Your task to perform on an android device: Open ESPN.com Image 0: 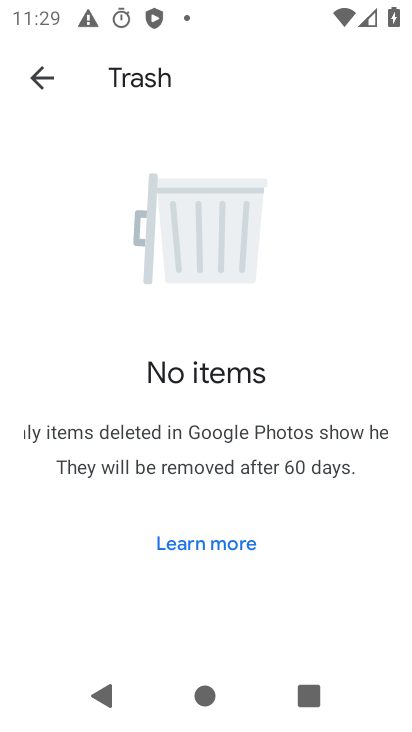
Step 0: press home button
Your task to perform on an android device: Open ESPN.com Image 1: 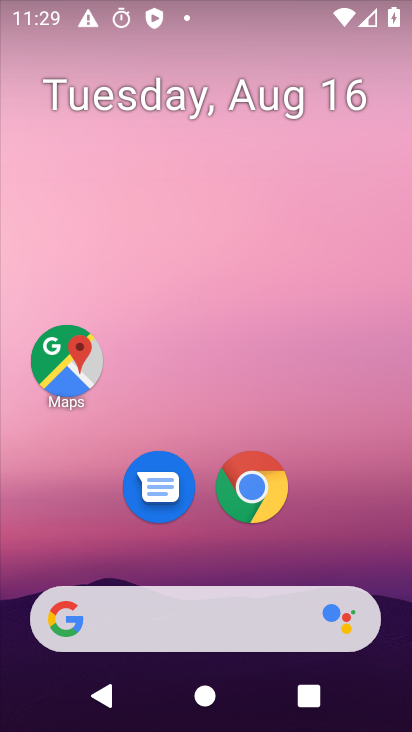
Step 1: click (248, 476)
Your task to perform on an android device: Open ESPN.com Image 2: 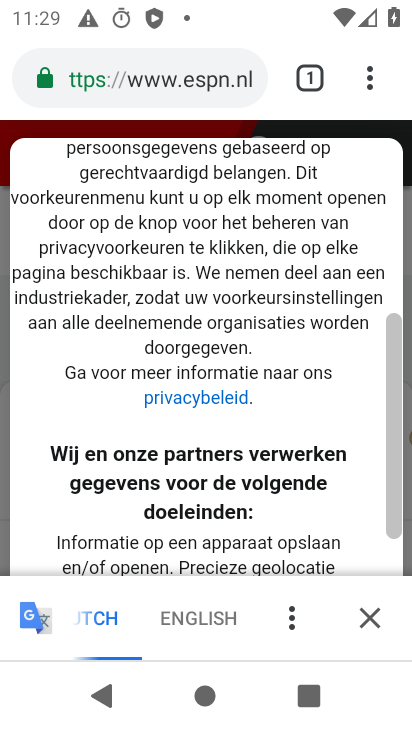
Step 2: click (368, 622)
Your task to perform on an android device: Open ESPN.com Image 3: 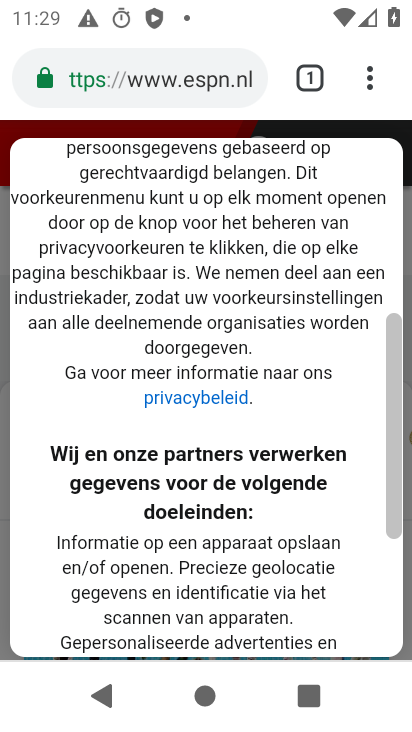
Step 3: drag from (368, 622) to (388, 215)
Your task to perform on an android device: Open ESPN.com Image 4: 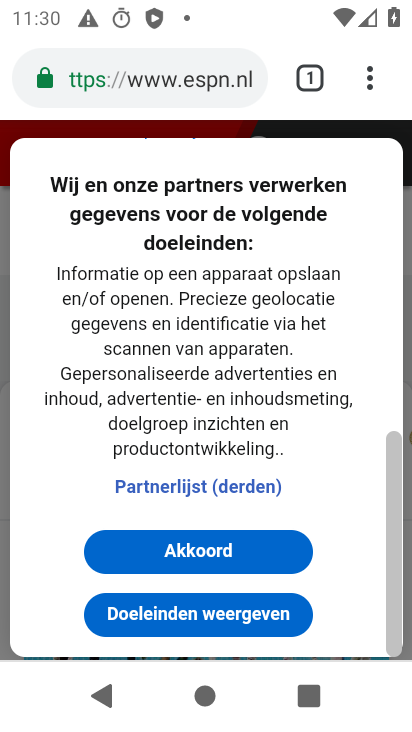
Step 4: click (181, 565)
Your task to perform on an android device: Open ESPN.com Image 5: 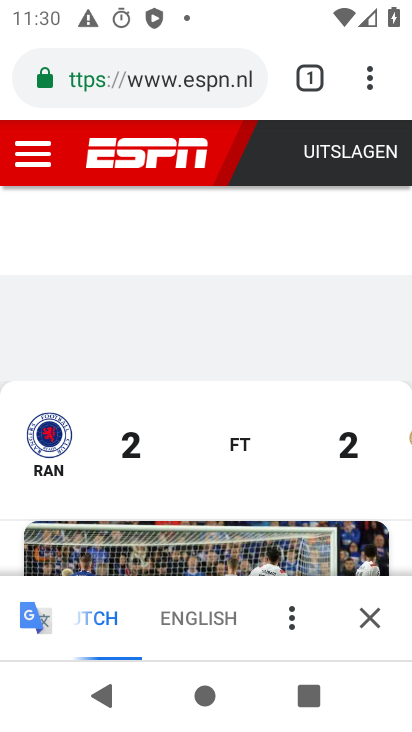
Step 5: task complete